Your task to perform on an android device: Open accessibility settings Image 0: 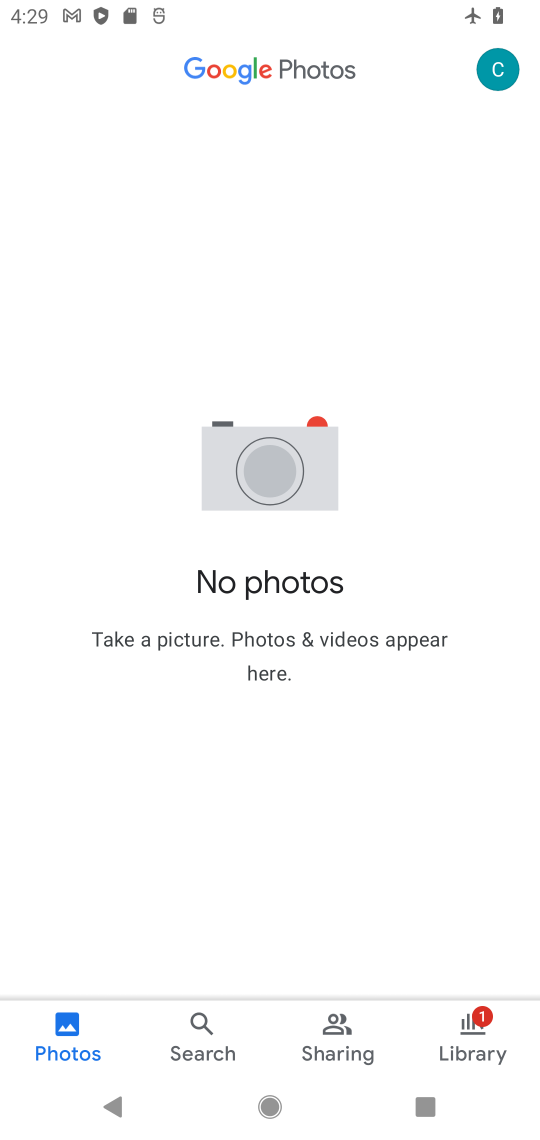
Step 0: press home button
Your task to perform on an android device: Open accessibility settings Image 1: 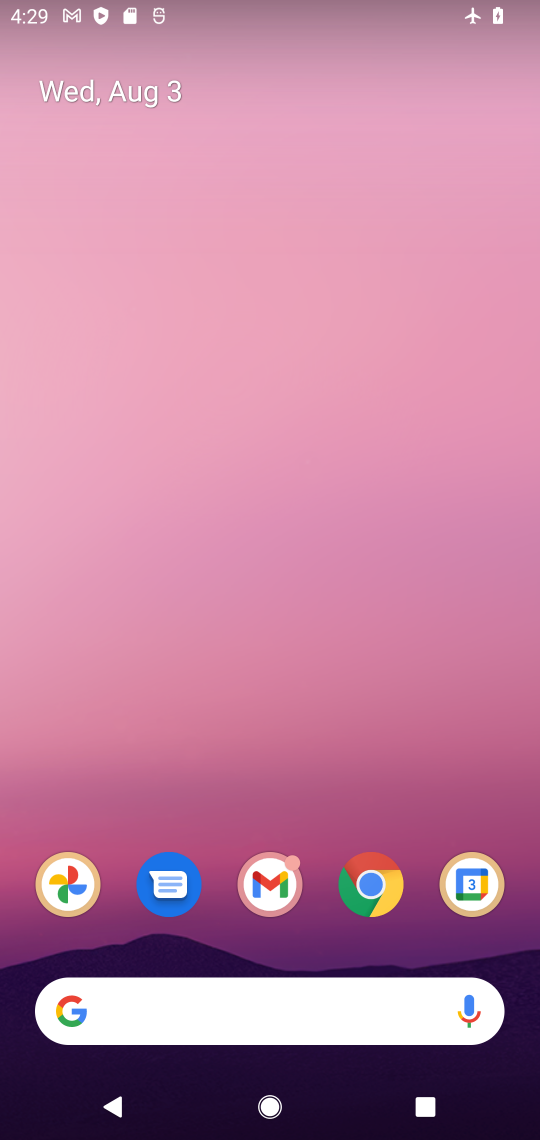
Step 1: drag from (293, 770) to (363, 0)
Your task to perform on an android device: Open accessibility settings Image 2: 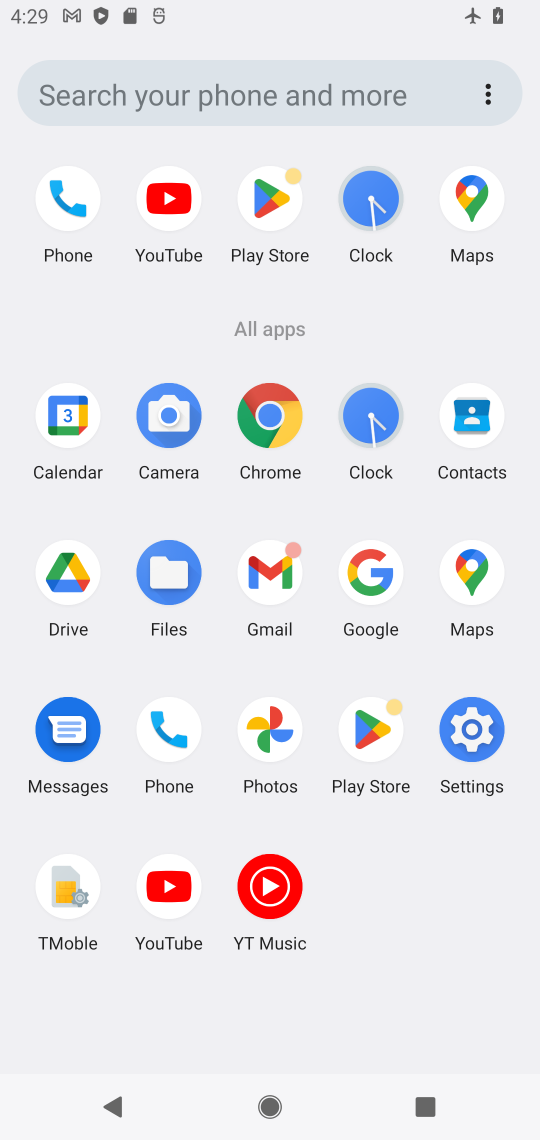
Step 2: click (469, 730)
Your task to perform on an android device: Open accessibility settings Image 3: 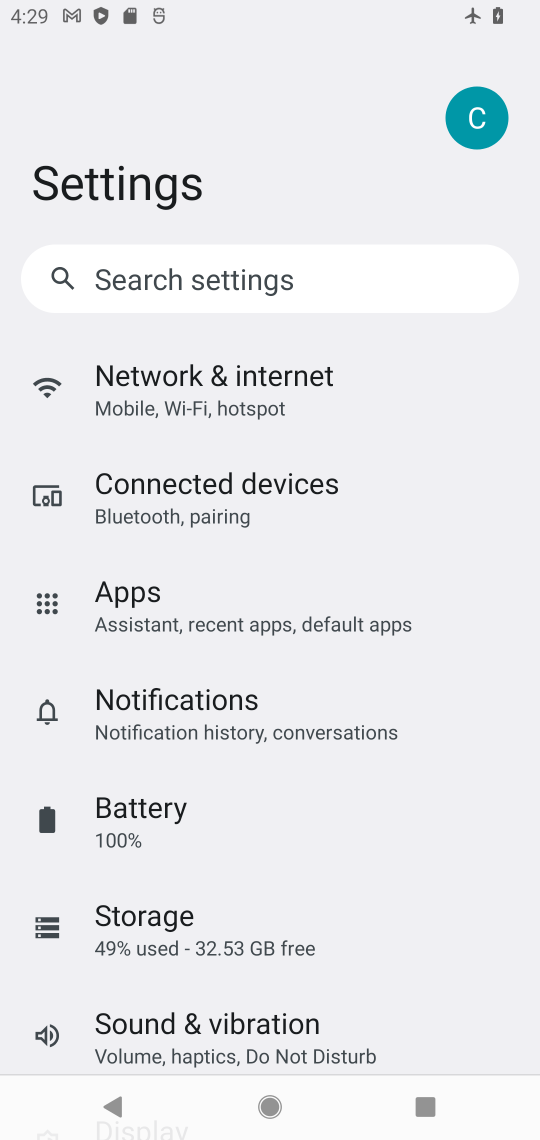
Step 3: drag from (323, 959) to (380, 401)
Your task to perform on an android device: Open accessibility settings Image 4: 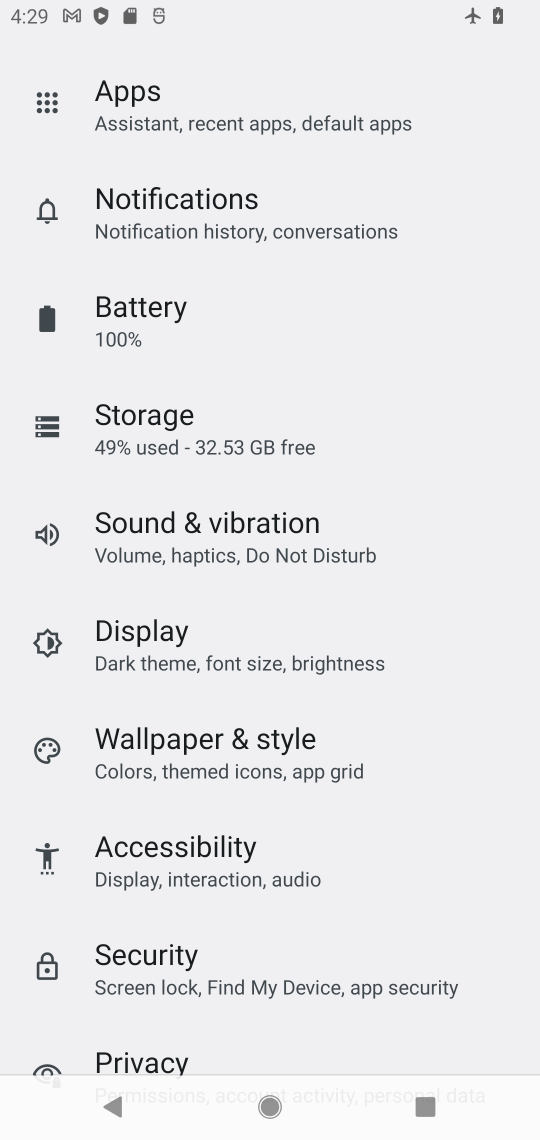
Step 4: click (192, 854)
Your task to perform on an android device: Open accessibility settings Image 5: 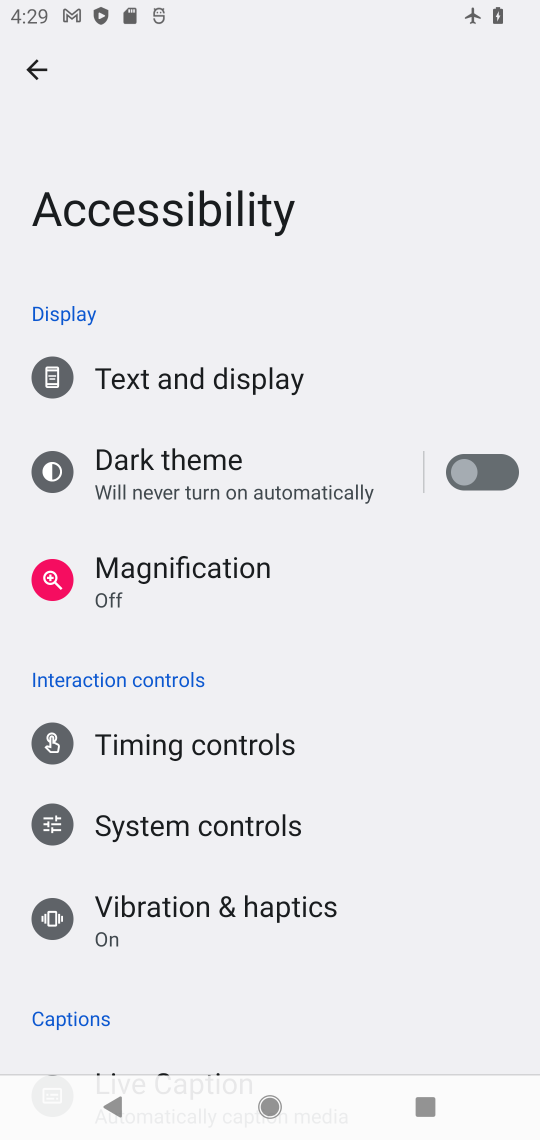
Step 5: task complete